Your task to perform on an android device: What's on my calendar tomorrow? Image 0: 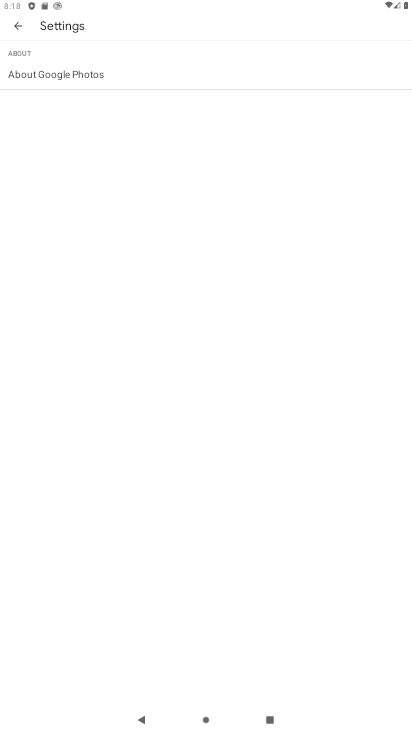
Step 0: press home button
Your task to perform on an android device: What's on my calendar tomorrow? Image 1: 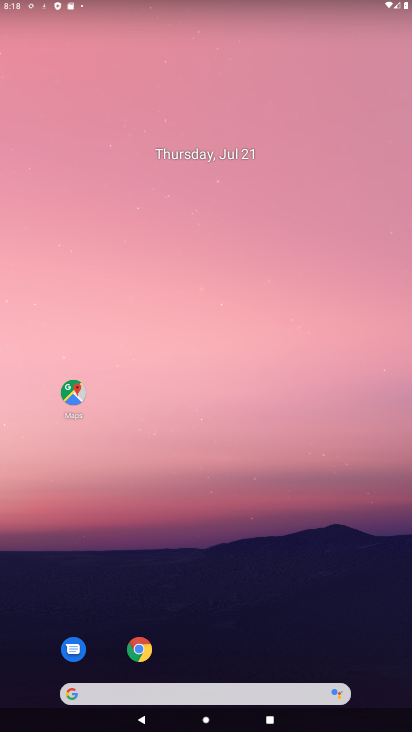
Step 1: drag from (224, 644) to (206, 119)
Your task to perform on an android device: What's on my calendar tomorrow? Image 2: 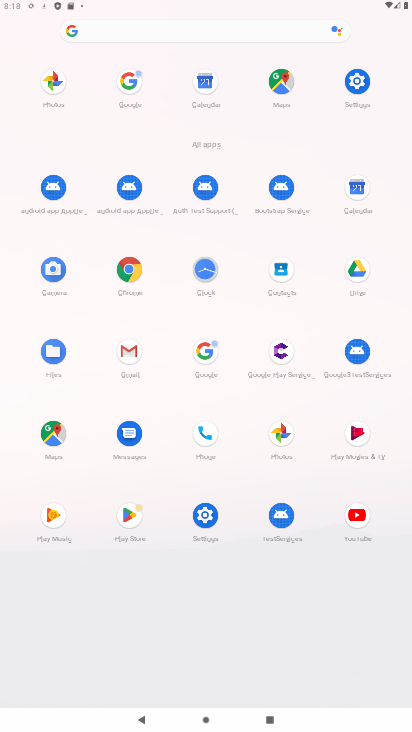
Step 2: click (357, 188)
Your task to perform on an android device: What's on my calendar tomorrow? Image 3: 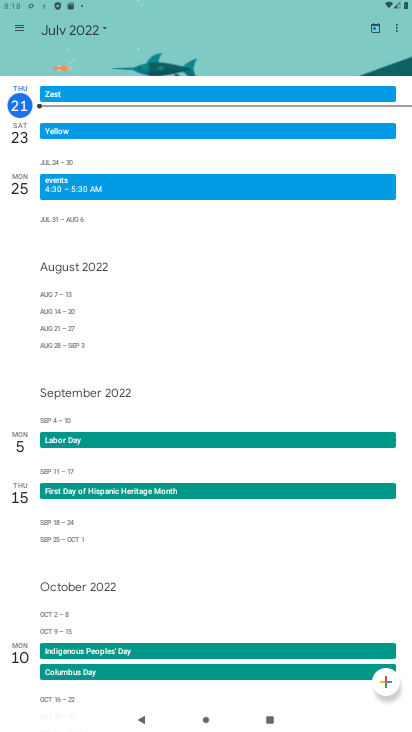
Step 3: click (103, 27)
Your task to perform on an android device: What's on my calendar tomorrow? Image 4: 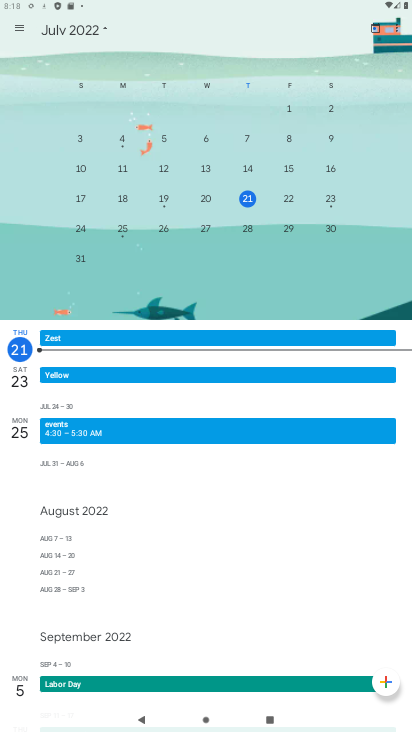
Step 4: click (289, 198)
Your task to perform on an android device: What's on my calendar tomorrow? Image 5: 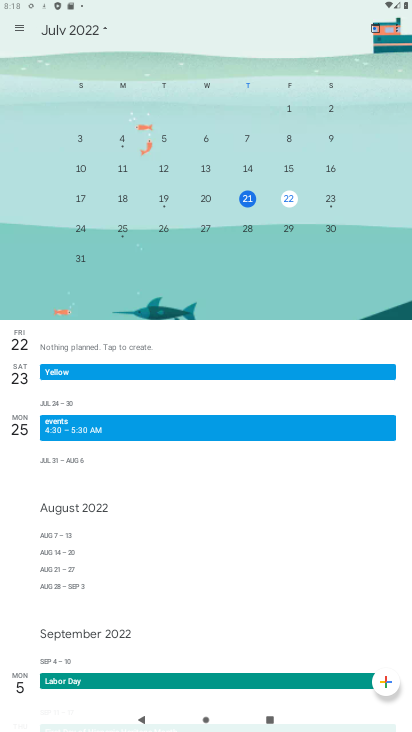
Step 5: task complete